Your task to perform on an android device: turn off notifications in google photos Image 0: 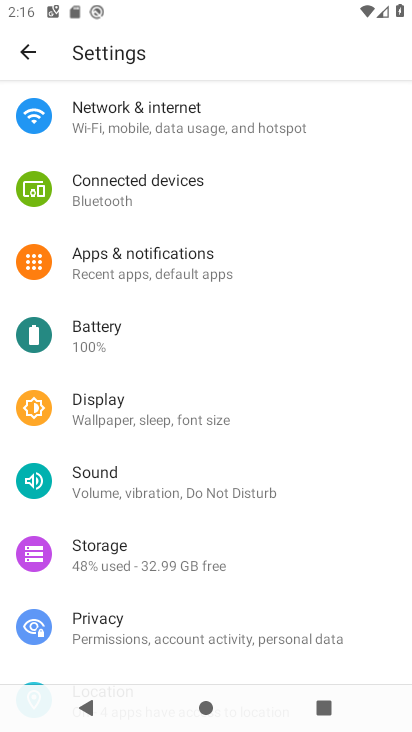
Step 0: press home button
Your task to perform on an android device: turn off notifications in google photos Image 1: 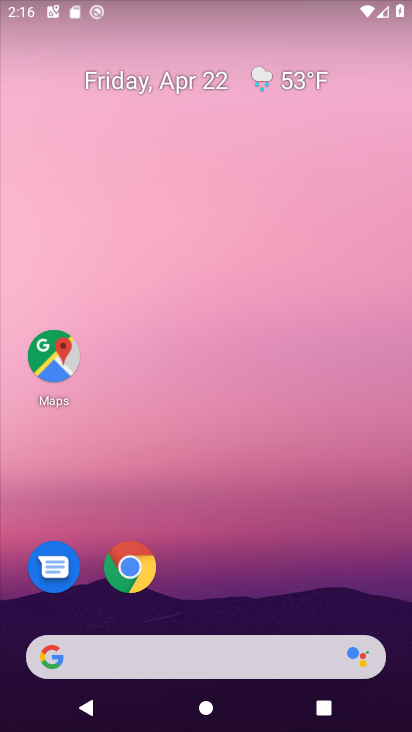
Step 1: drag from (285, 516) to (309, 15)
Your task to perform on an android device: turn off notifications in google photos Image 2: 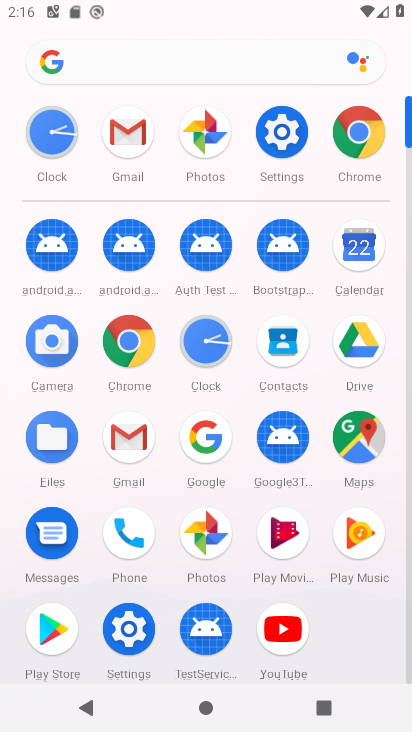
Step 2: click (282, 125)
Your task to perform on an android device: turn off notifications in google photos Image 3: 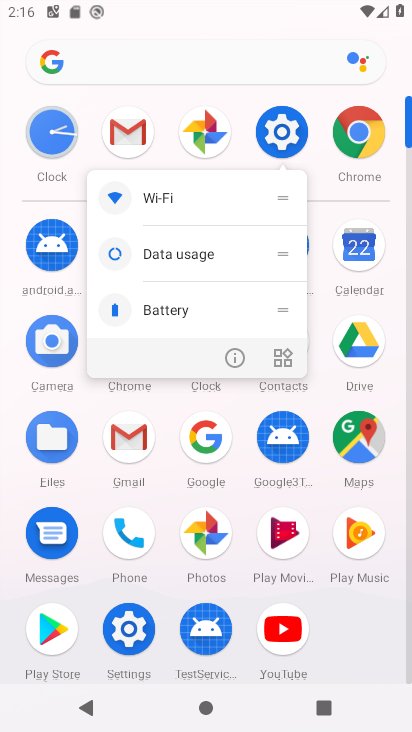
Step 3: click (284, 111)
Your task to perform on an android device: turn off notifications in google photos Image 4: 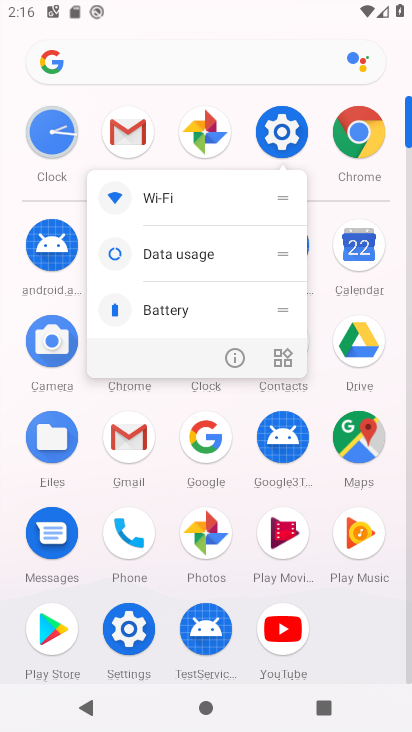
Step 4: click (285, 121)
Your task to perform on an android device: turn off notifications in google photos Image 5: 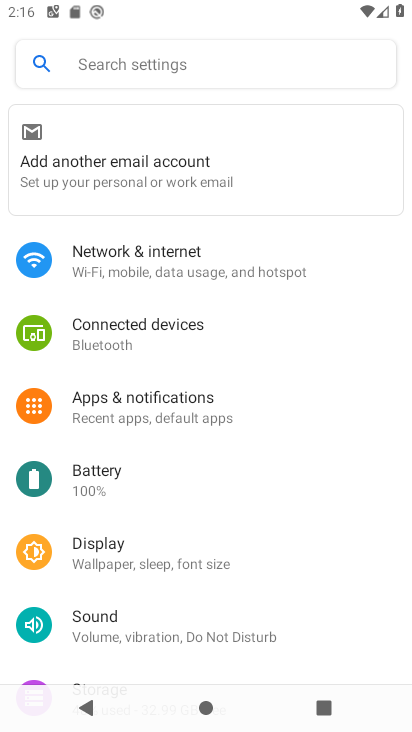
Step 5: click (195, 411)
Your task to perform on an android device: turn off notifications in google photos Image 6: 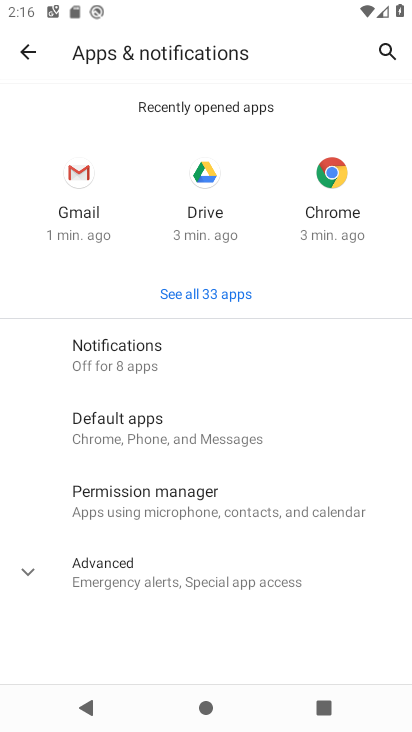
Step 6: click (242, 283)
Your task to perform on an android device: turn off notifications in google photos Image 7: 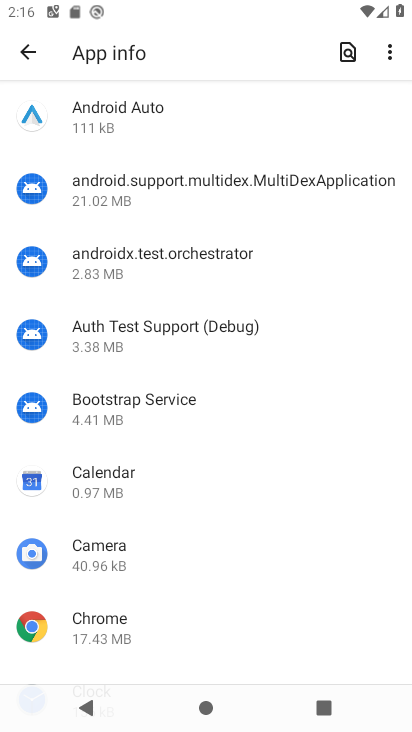
Step 7: drag from (202, 619) to (240, 157)
Your task to perform on an android device: turn off notifications in google photos Image 8: 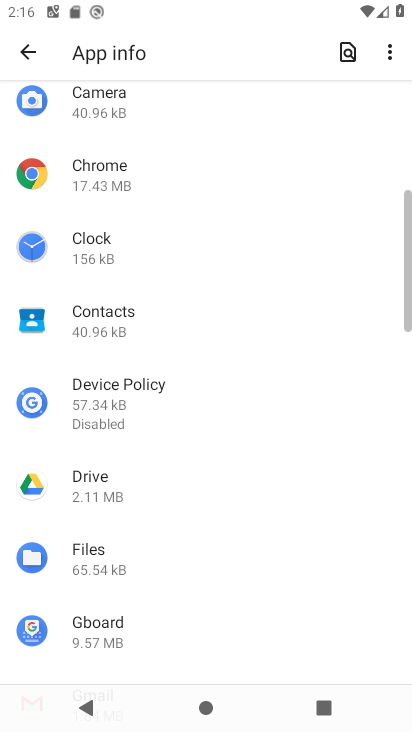
Step 8: drag from (190, 644) to (211, 79)
Your task to perform on an android device: turn off notifications in google photos Image 9: 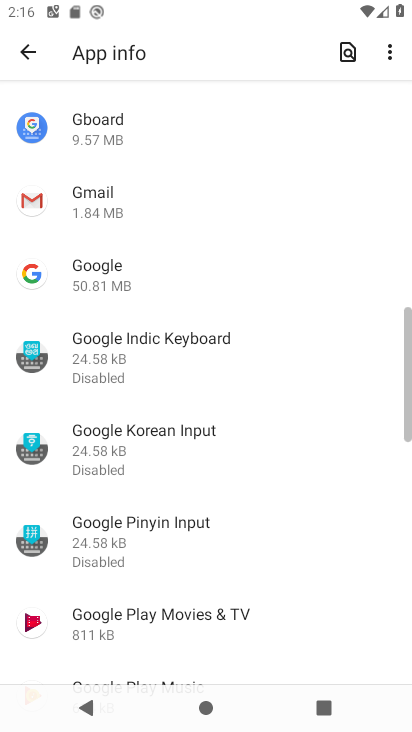
Step 9: drag from (217, 612) to (221, 135)
Your task to perform on an android device: turn off notifications in google photos Image 10: 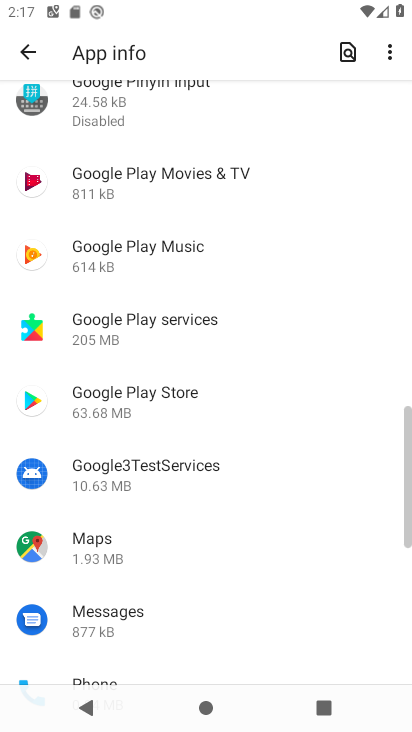
Step 10: drag from (214, 622) to (229, 198)
Your task to perform on an android device: turn off notifications in google photos Image 11: 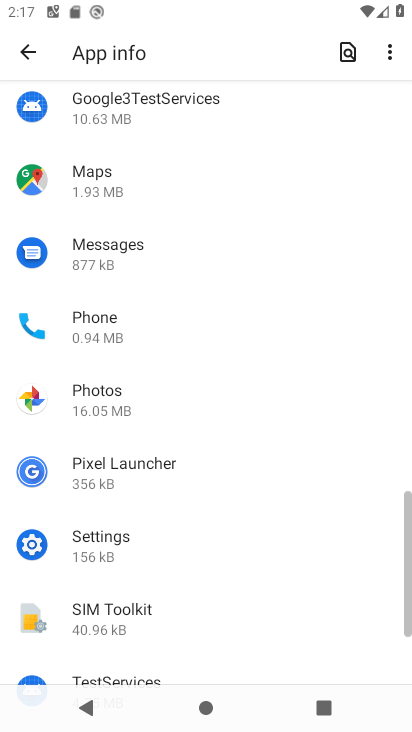
Step 11: click (140, 392)
Your task to perform on an android device: turn off notifications in google photos Image 12: 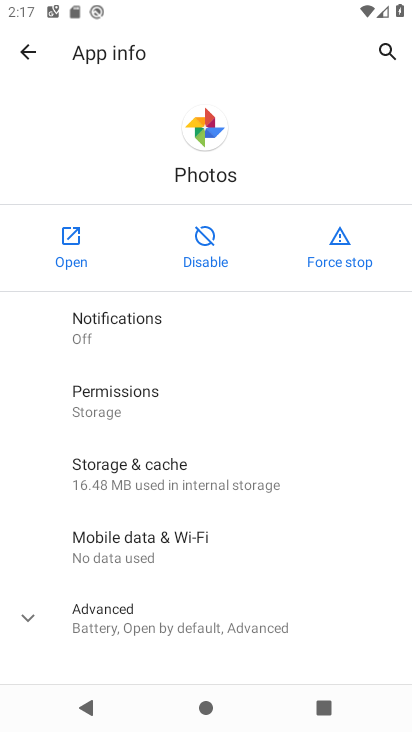
Step 12: click (175, 327)
Your task to perform on an android device: turn off notifications in google photos Image 13: 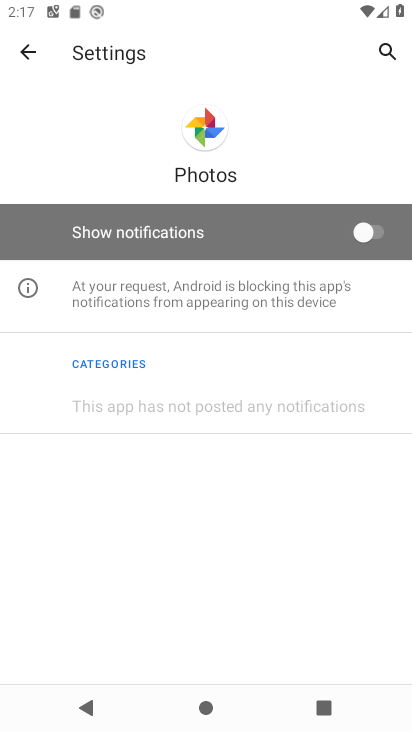
Step 13: task complete